Your task to perform on an android device: allow notifications from all sites in the chrome app Image 0: 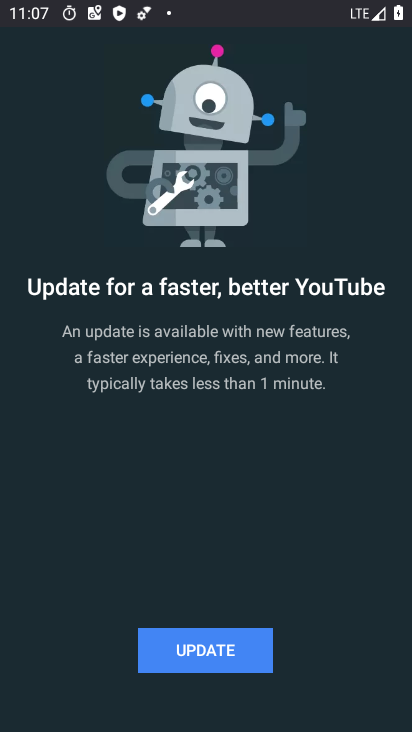
Step 0: press back button
Your task to perform on an android device: allow notifications from all sites in the chrome app Image 1: 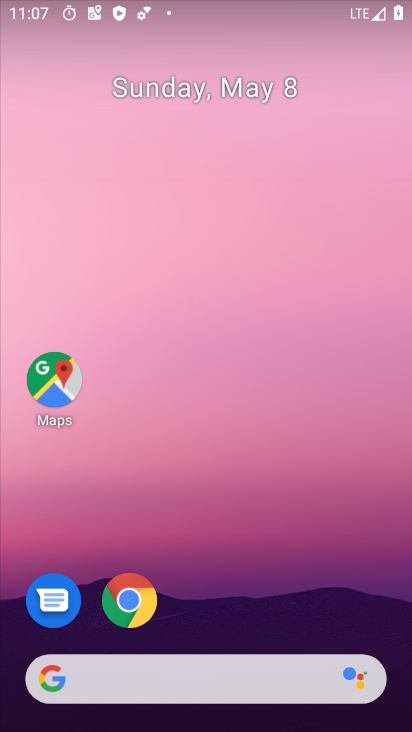
Step 1: click (113, 592)
Your task to perform on an android device: allow notifications from all sites in the chrome app Image 2: 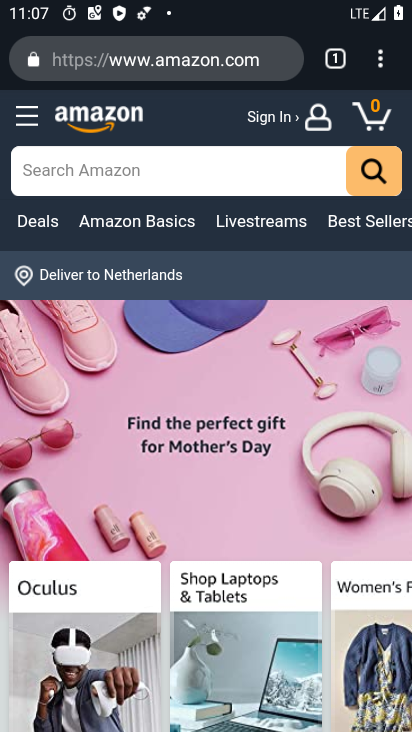
Step 2: click (371, 66)
Your task to perform on an android device: allow notifications from all sites in the chrome app Image 3: 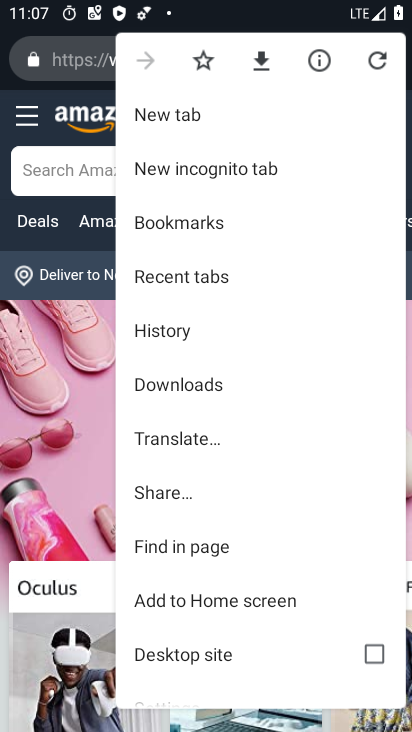
Step 3: drag from (163, 674) to (287, 255)
Your task to perform on an android device: allow notifications from all sites in the chrome app Image 4: 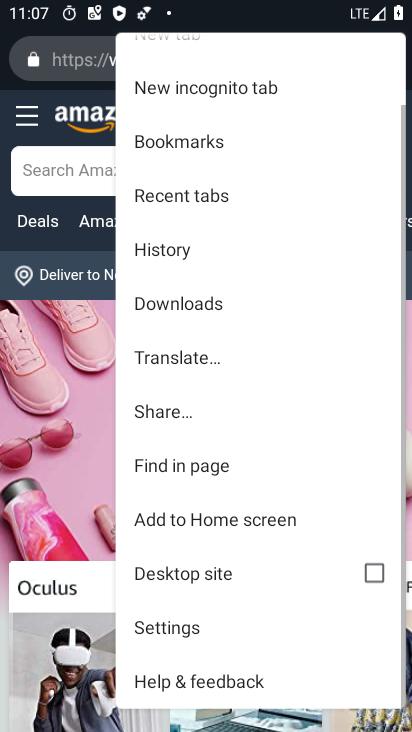
Step 4: click (179, 636)
Your task to perform on an android device: allow notifications from all sites in the chrome app Image 5: 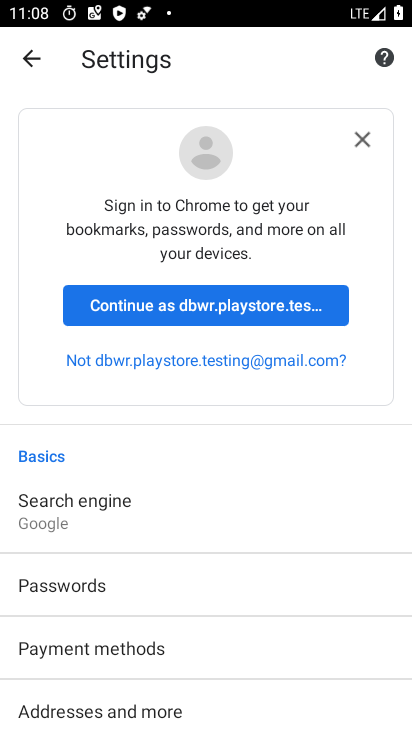
Step 5: drag from (65, 700) to (306, 195)
Your task to perform on an android device: allow notifications from all sites in the chrome app Image 6: 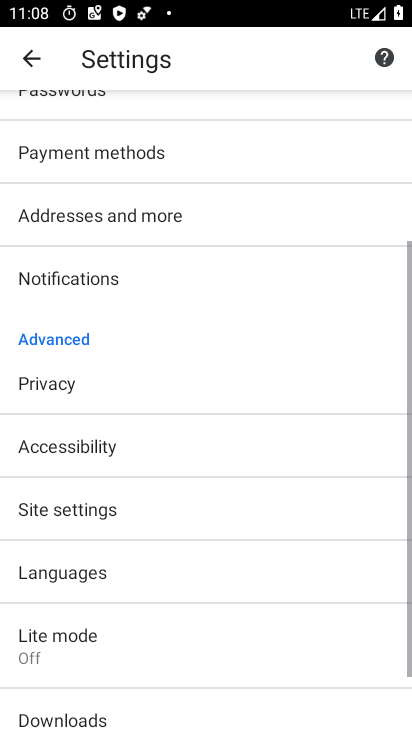
Step 6: click (82, 508)
Your task to perform on an android device: allow notifications from all sites in the chrome app Image 7: 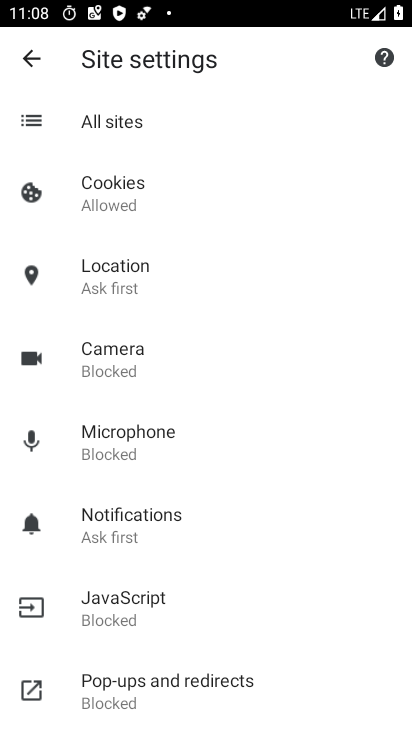
Step 7: click (155, 521)
Your task to perform on an android device: allow notifications from all sites in the chrome app Image 8: 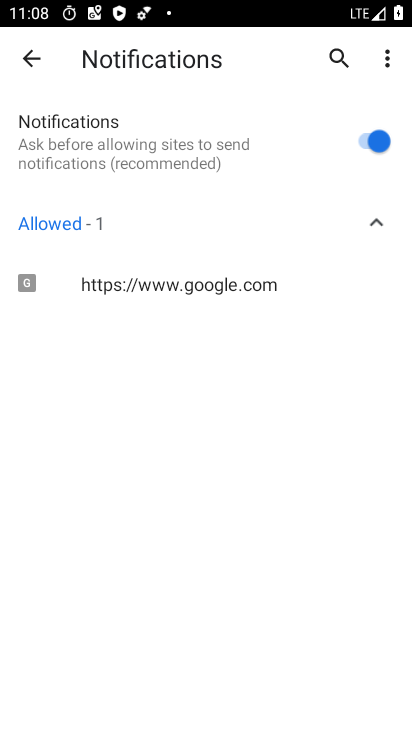
Step 8: task complete